Your task to perform on an android device: check out phone information Image 0: 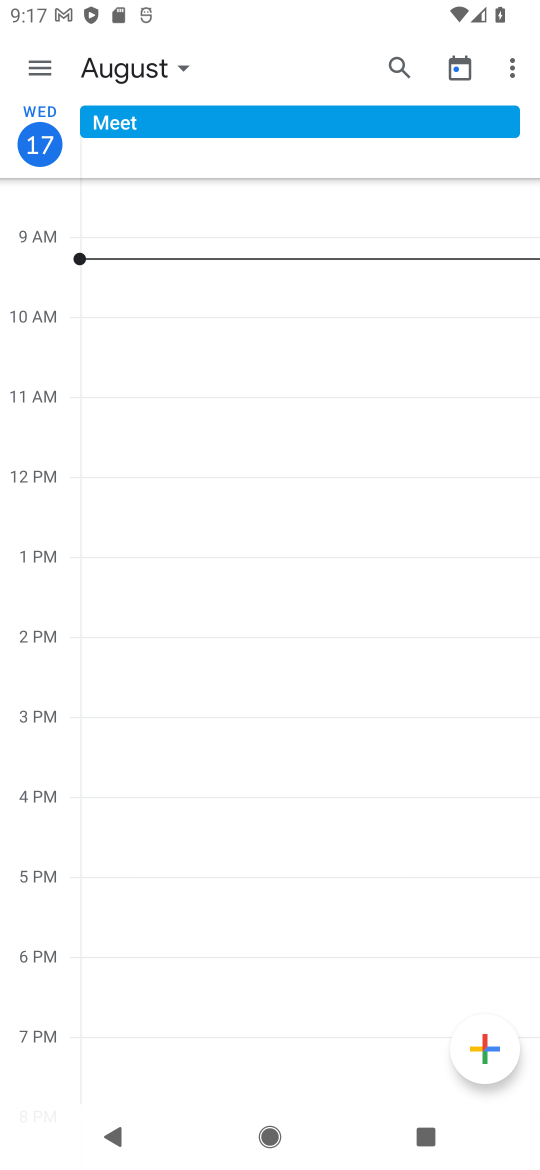
Step 0: press home button
Your task to perform on an android device: check out phone information Image 1: 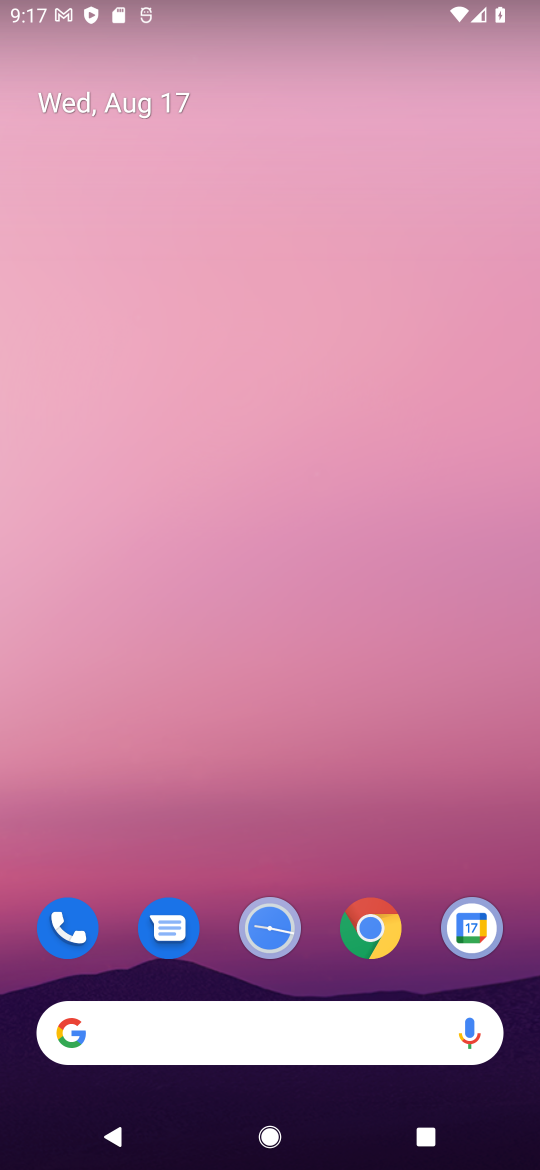
Step 1: drag from (405, 847) to (341, 129)
Your task to perform on an android device: check out phone information Image 2: 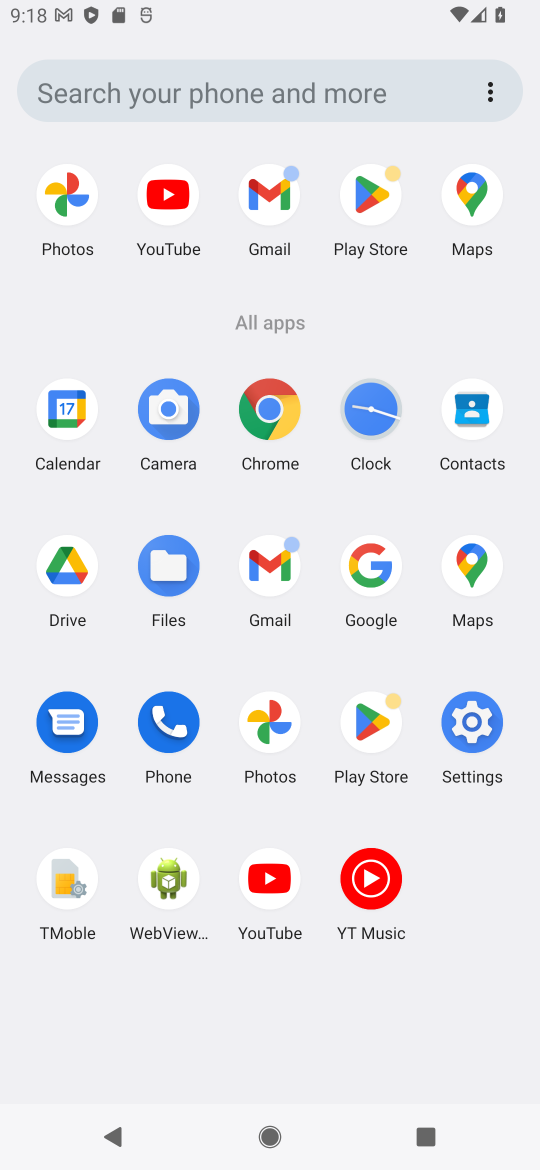
Step 2: click (491, 712)
Your task to perform on an android device: check out phone information Image 3: 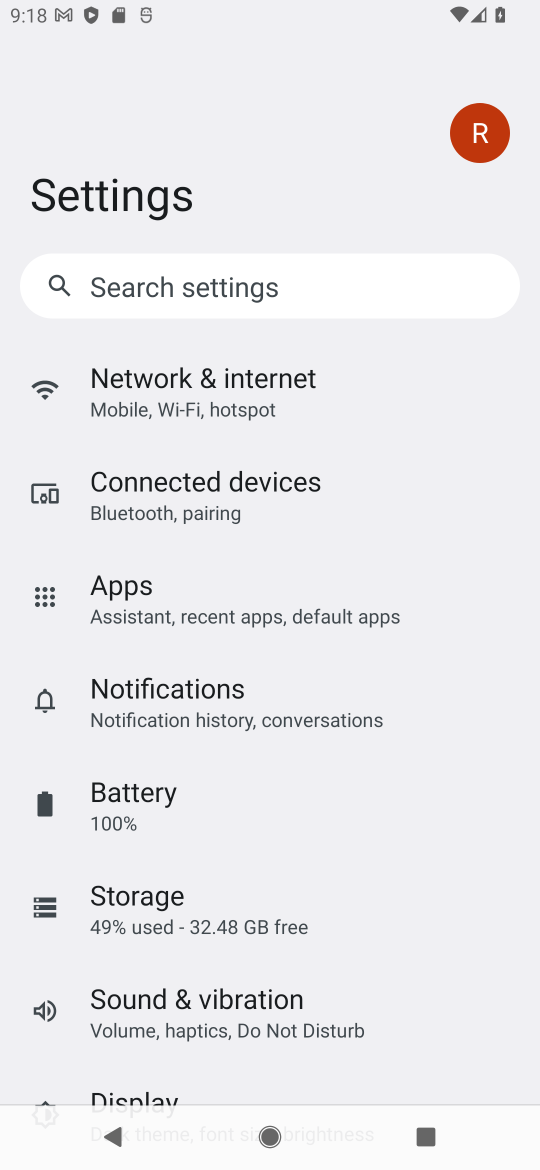
Step 3: drag from (476, 923) to (370, 82)
Your task to perform on an android device: check out phone information Image 4: 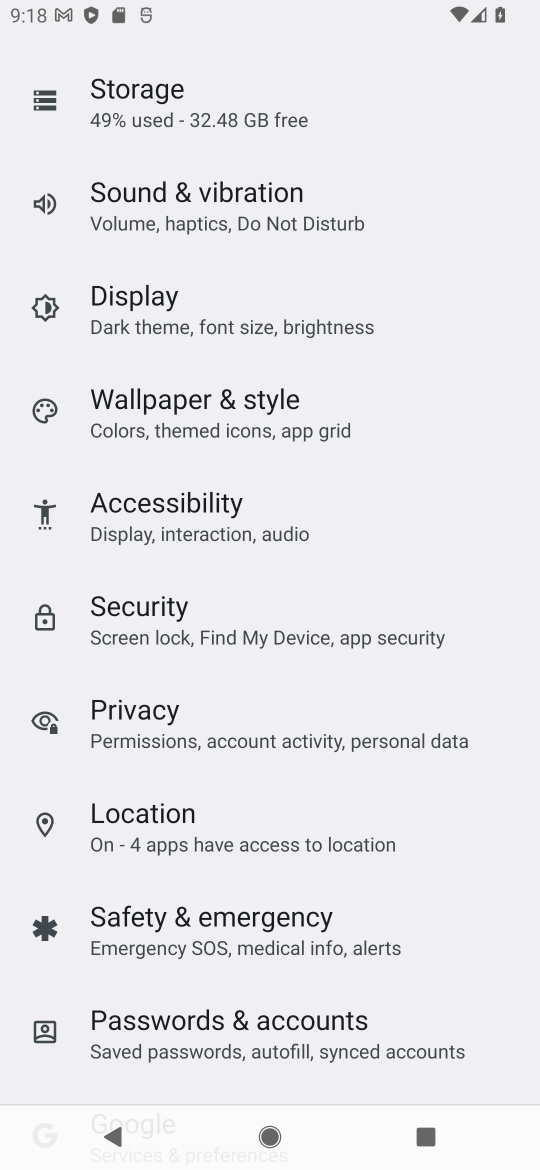
Step 4: drag from (376, 994) to (250, 80)
Your task to perform on an android device: check out phone information Image 5: 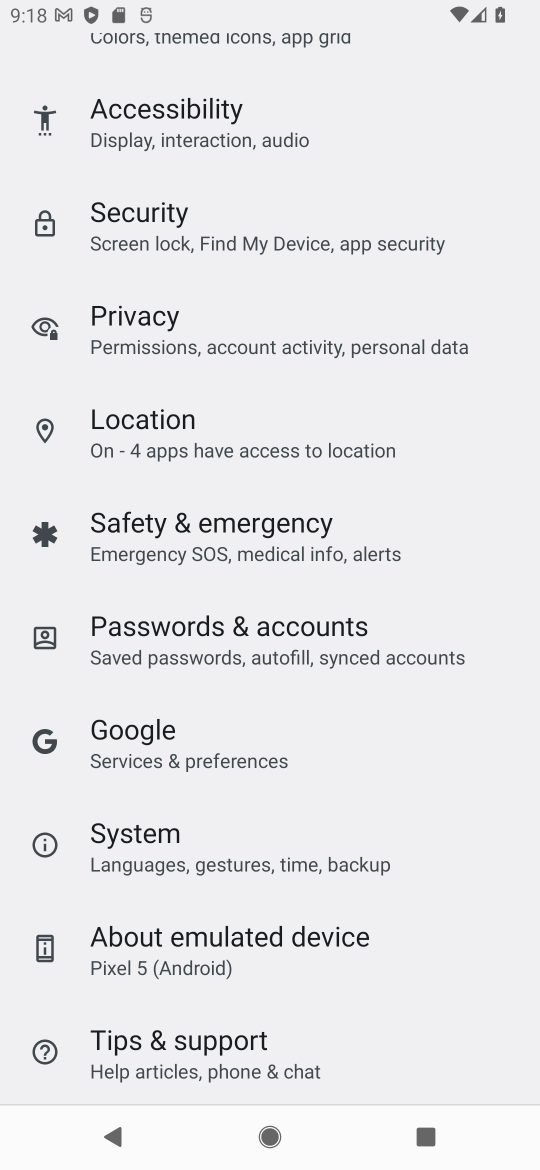
Step 5: drag from (305, 735) to (234, 172)
Your task to perform on an android device: check out phone information Image 6: 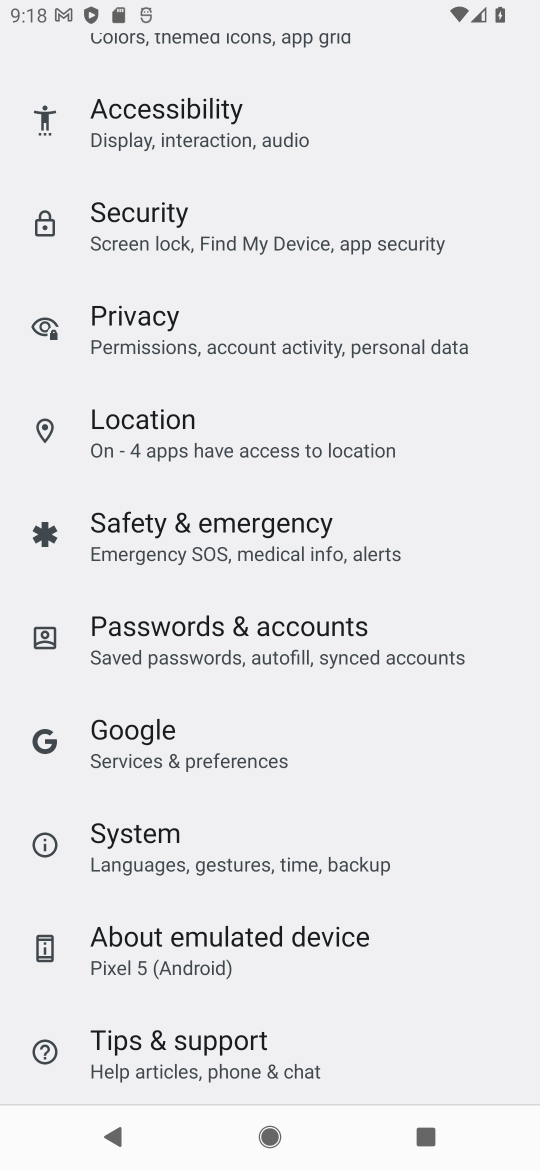
Step 6: click (303, 947)
Your task to perform on an android device: check out phone information Image 7: 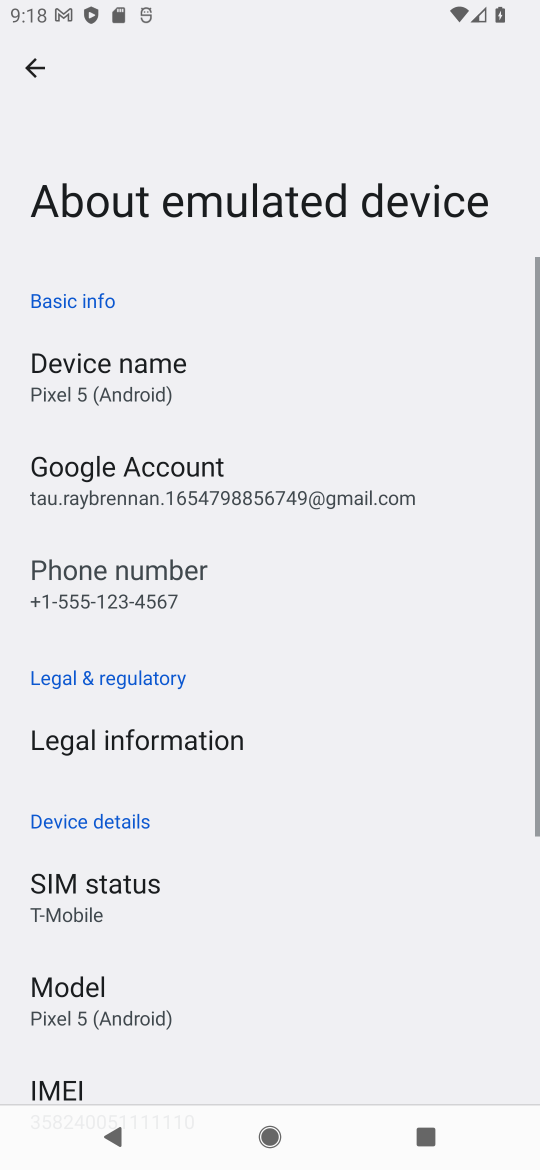
Step 7: task complete